Your task to perform on an android device: Open Amazon Image 0: 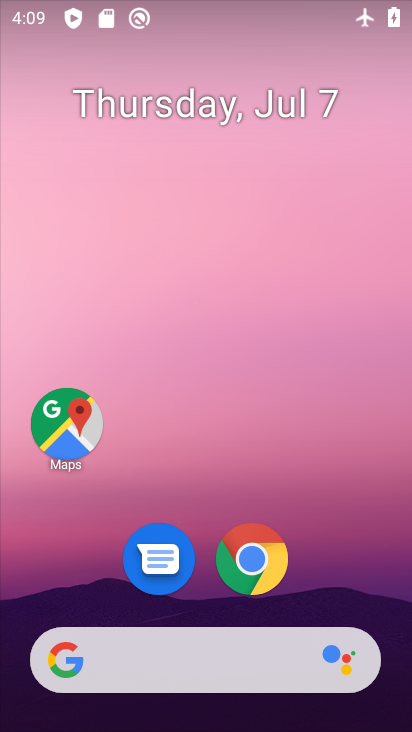
Step 0: drag from (219, 609) to (156, 154)
Your task to perform on an android device: Open Amazon Image 1: 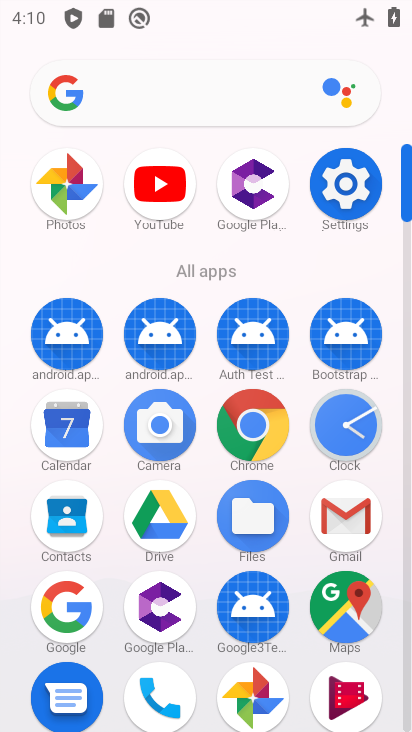
Step 1: click (237, 428)
Your task to perform on an android device: Open Amazon Image 2: 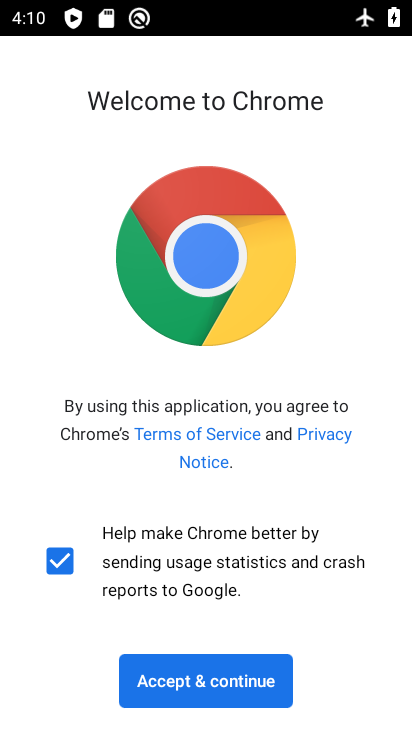
Step 2: click (199, 686)
Your task to perform on an android device: Open Amazon Image 3: 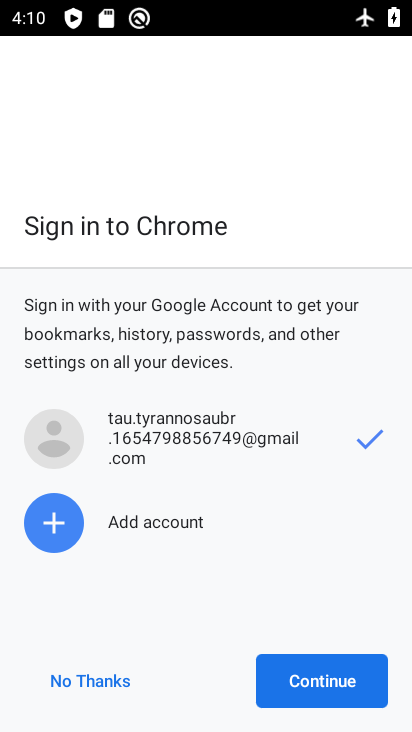
Step 3: click (285, 684)
Your task to perform on an android device: Open Amazon Image 4: 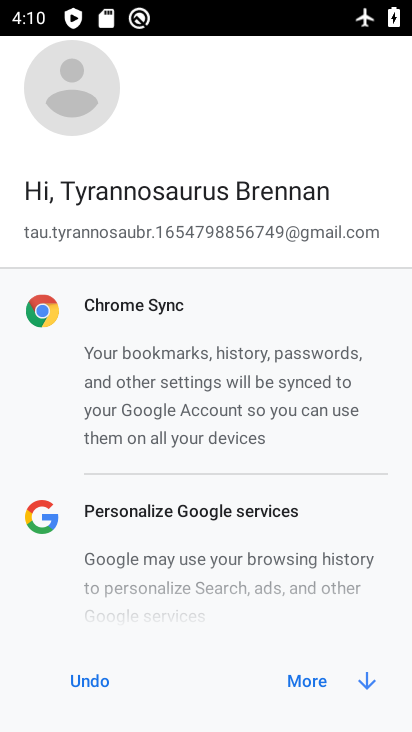
Step 4: click (302, 691)
Your task to perform on an android device: Open Amazon Image 5: 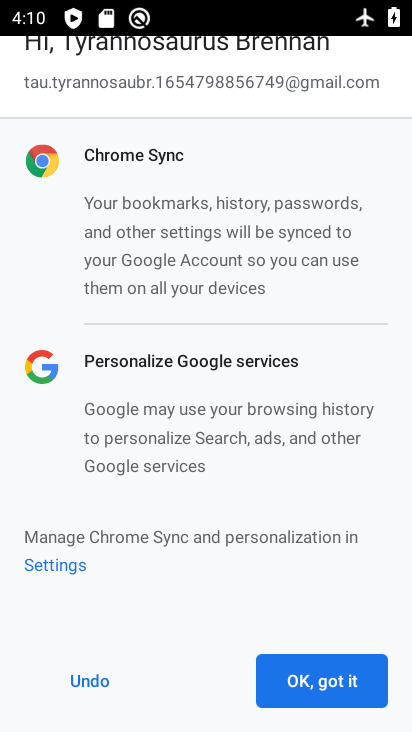
Step 5: click (308, 689)
Your task to perform on an android device: Open Amazon Image 6: 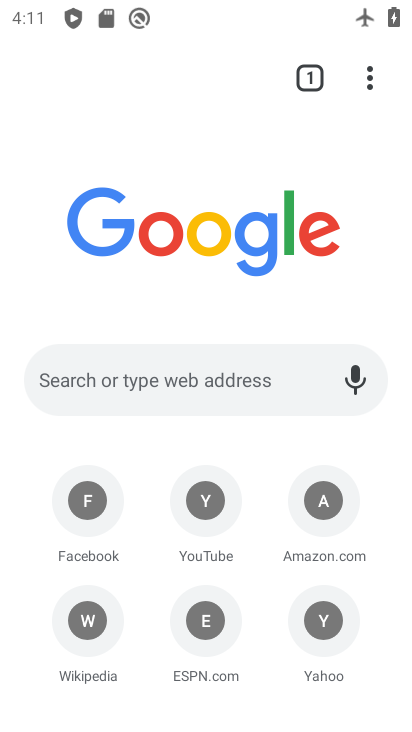
Step 6: click (331, 524)
Your task to perform on an android device: Open Amazon Image 7: 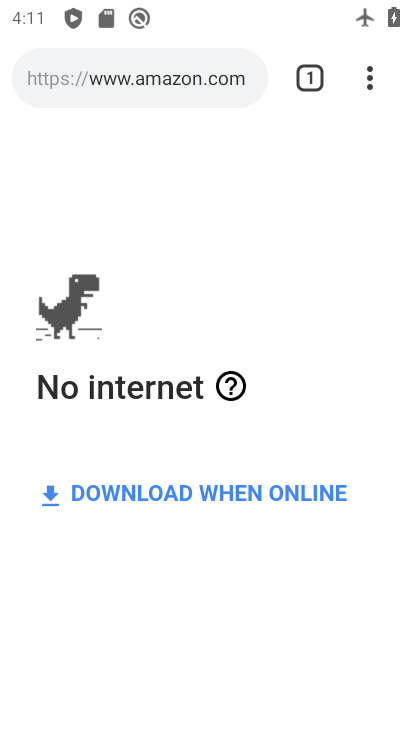
Step 7: task complete